Your task to perform on an android device: Go to calendar. Show me events next week Image 0: 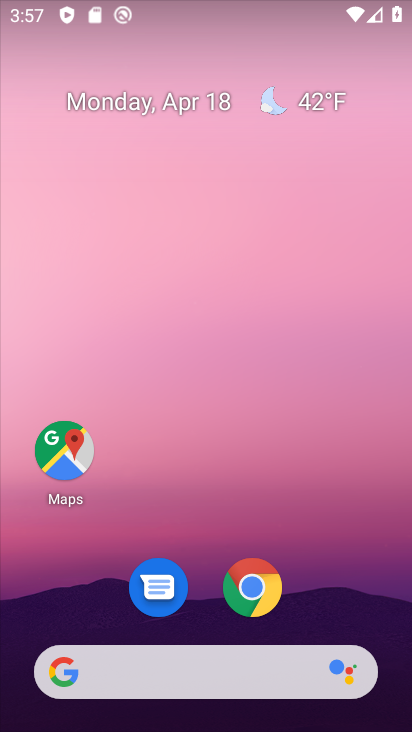
Step 0: drag from (189, 579) to (273, 155)
Your task to perform on an android device: Go to calendar. Show me events next week Image 1: 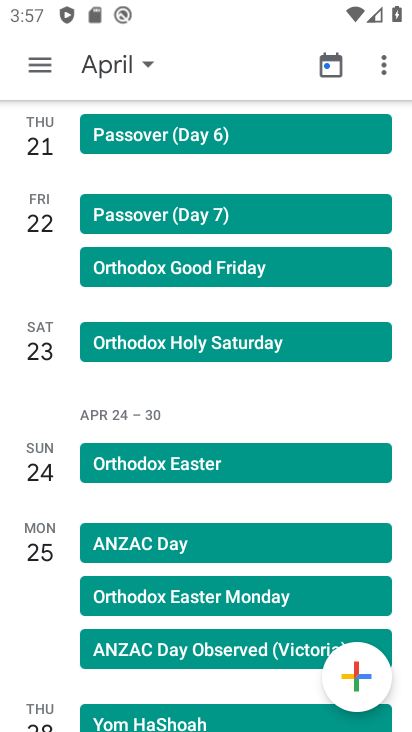
Step 1: click (46, 64)
Your task to perform on an android device: Go to calendar. Show me events next week Image 2: 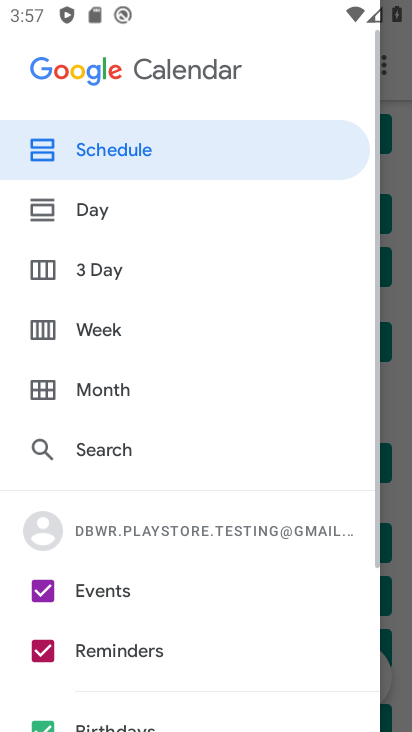
Step 2: click (114, 326)
Your task to perform on an android device: Go to calendar. Show me events next week Image 3: 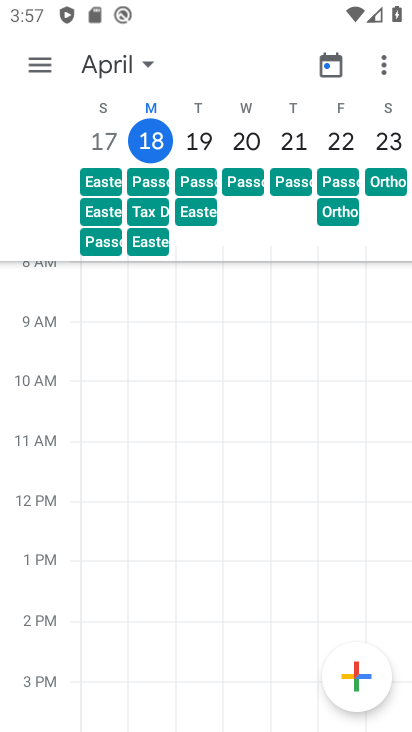
Step 3: task complete